Your task to perform on an android device: toggle location history Image 0: 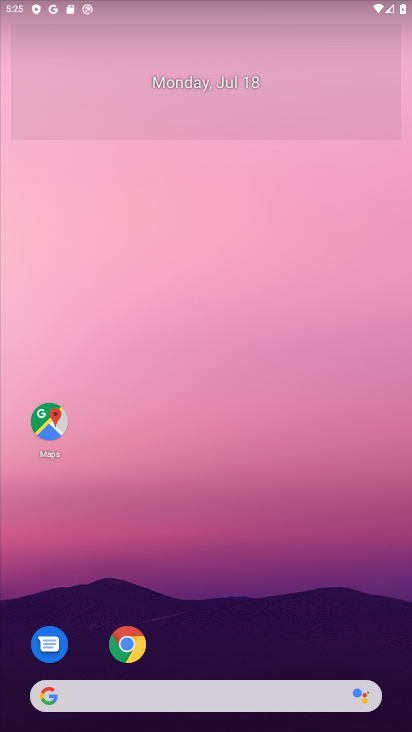
Step 0: press home button
Your task to perform on an android device: toggle location history Image 1: 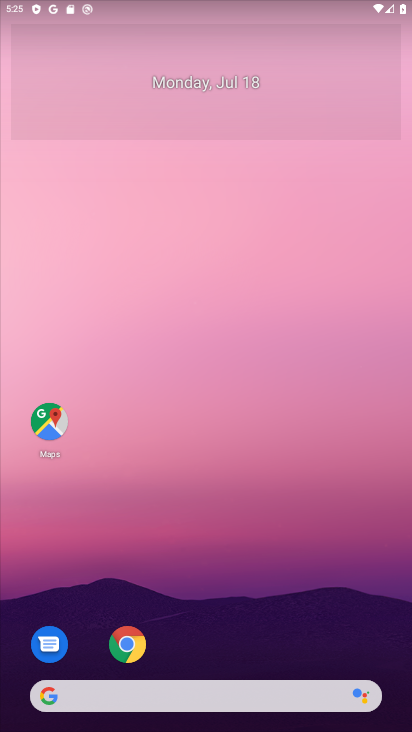
Step 1: drag from (273, 642) to (360, 82)
Your task to perform on an android device: toggle location history Image 2: 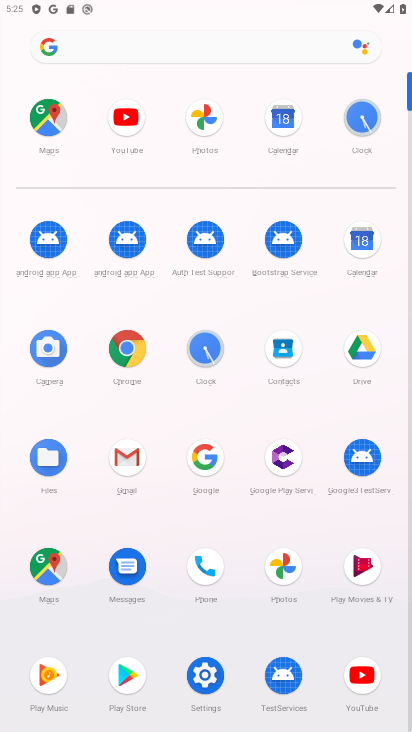
Step 2: click (204, 676)
Your task to perform on an android device: toggle location history Image 3: 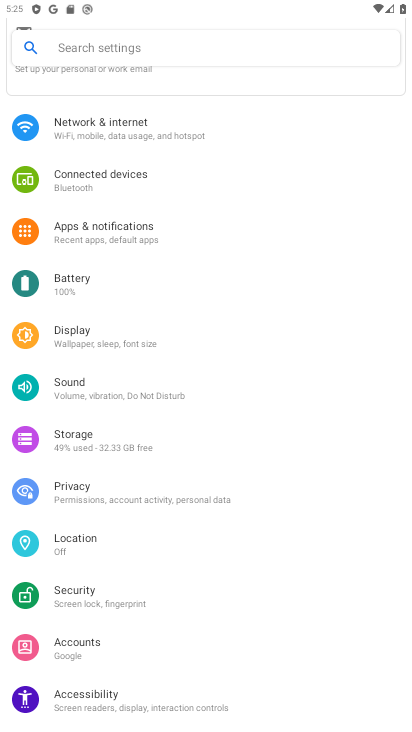
Step 3: click (83, 540)
Your task to perform on an android device: toggle location history Image 4: 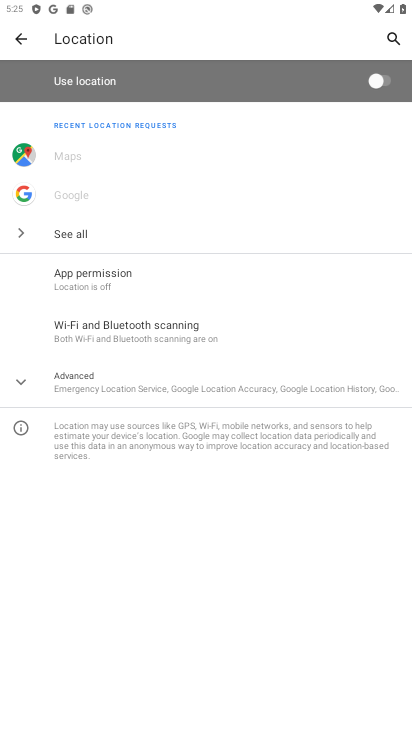
Step 4: click (27, 384)
Your task to perform on an android device: toggle location history Image 5: 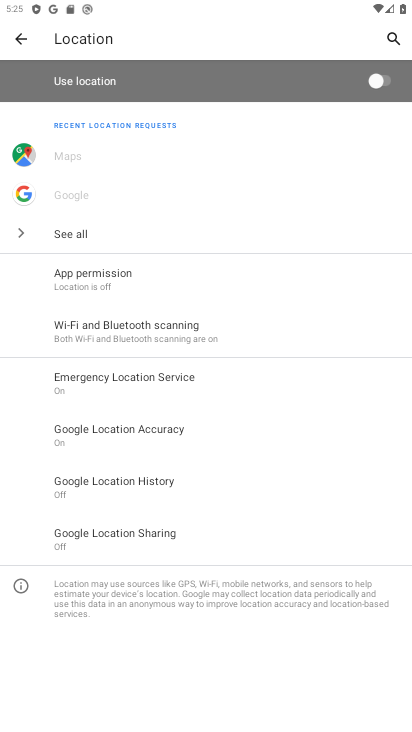
Step 5: click (142, 477)
Your task to perform on an android device: toggle location history Image 6: 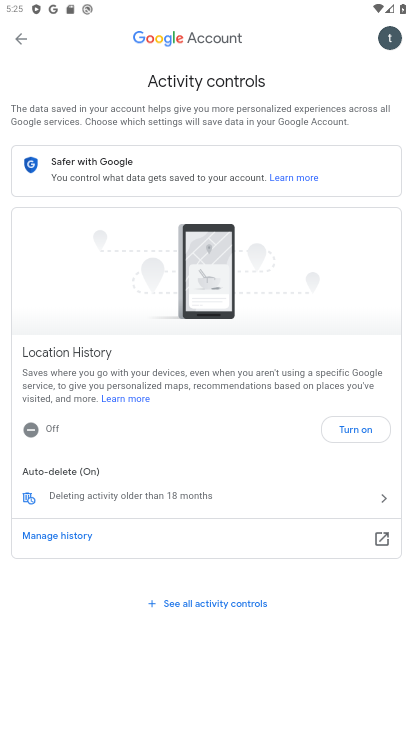
Step 6: click (340, 422)
Your task to perform on an android device: toggle location history Image 7: 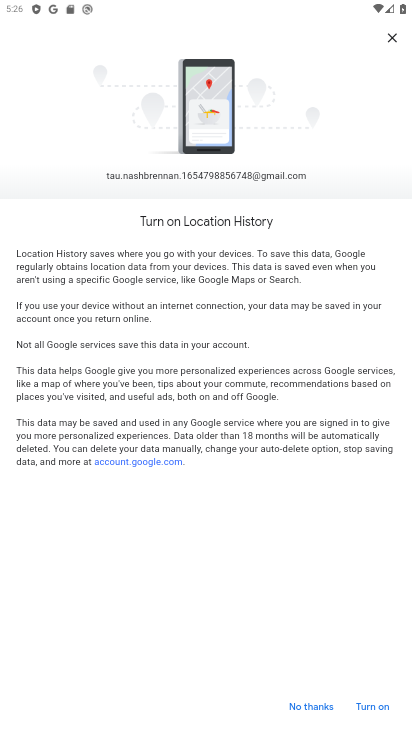
Step 7: click (382, 701)
Your task to perform on an android device: toggle location history Image 8: 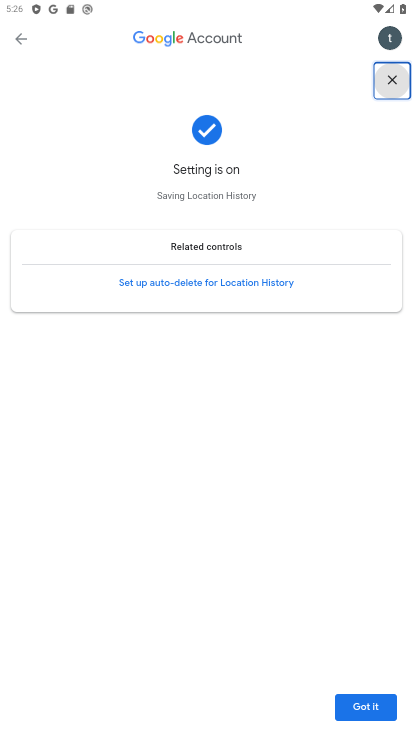
Step 8: click (372, 711)
Your task to perform on an android device: toggle location history Image 9: 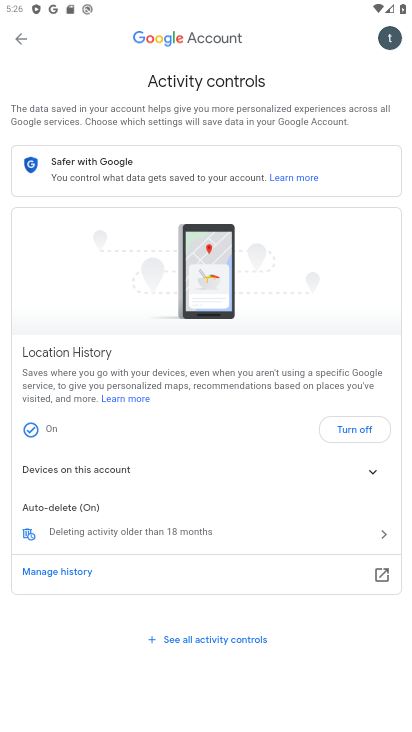
Step 9: task complete